Your task to perform on an android device: What's the weather going to be this weekend? Image 0: 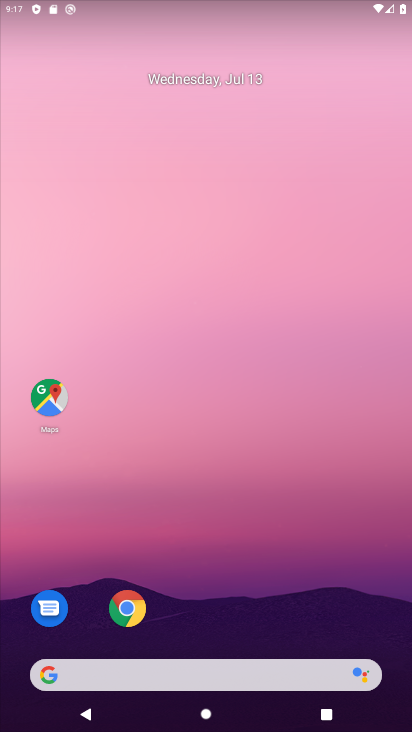
Step 0: click (86, 679)
Your task to perform on an android device: What's the weather going to be this weekend? Image 1: 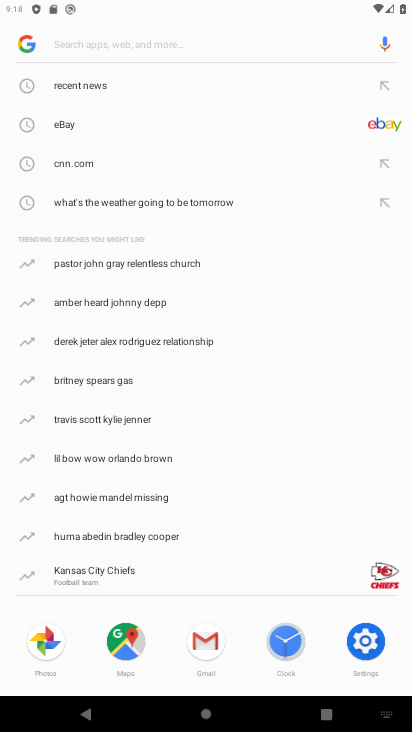
Step 1: type "What's the weather going to be this weekend?"
Your task to perform on an android device: What's the weather going to be this weekend? Image 2: 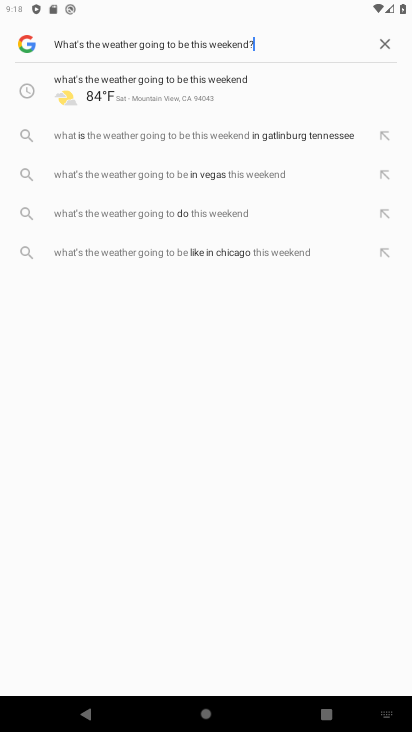
Step 2: type ""
Your task to perform on an android device: What's the weather going to be this weekend? Image 3: 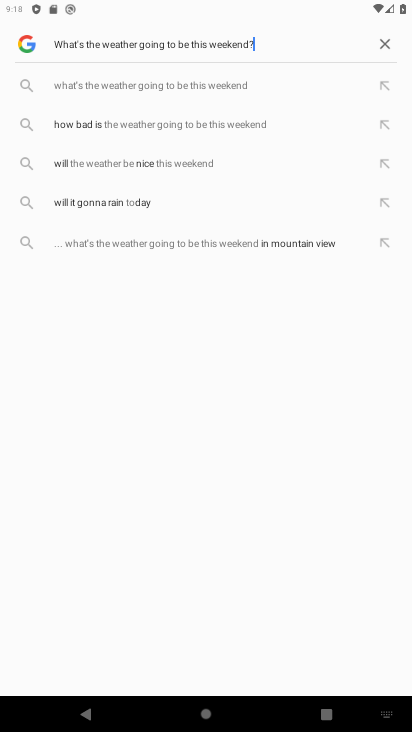
Step 3: click (205, 76)
Your task to perform on an android device: What's the weather going to be this weekend? Image 4: 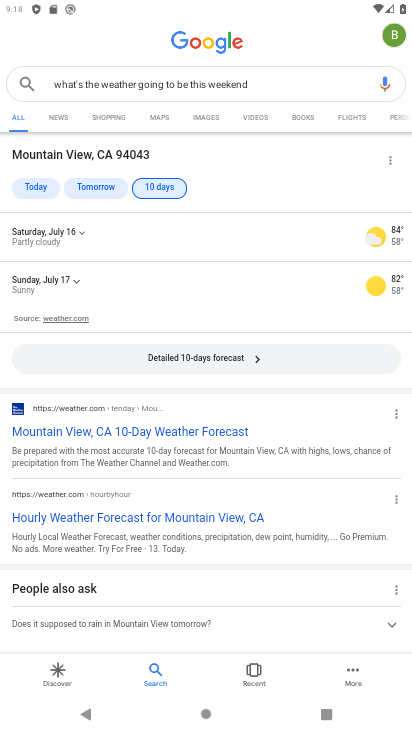
Step 4: task complete